Your task to perform on an android device: turn pop-ups off in chrome Image 0: 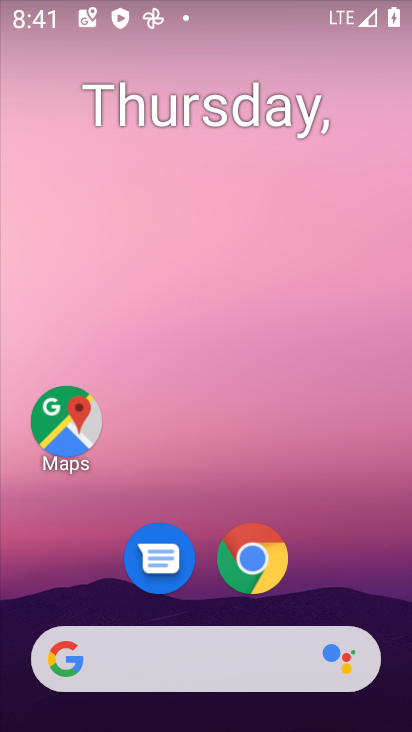
Step 0: click (264, 554)
Your task to perform on an android device: turn pop-ups off in chrome Image 1: 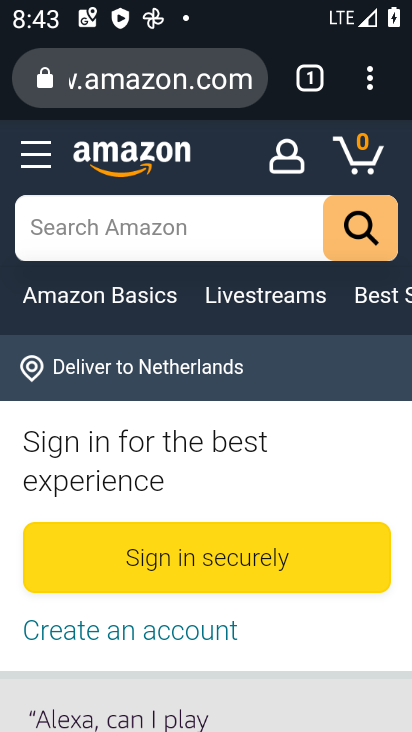
Step 1: click (370, 88)
Your task to perform on an android device: turn pop-ups off in chrome Image 2: 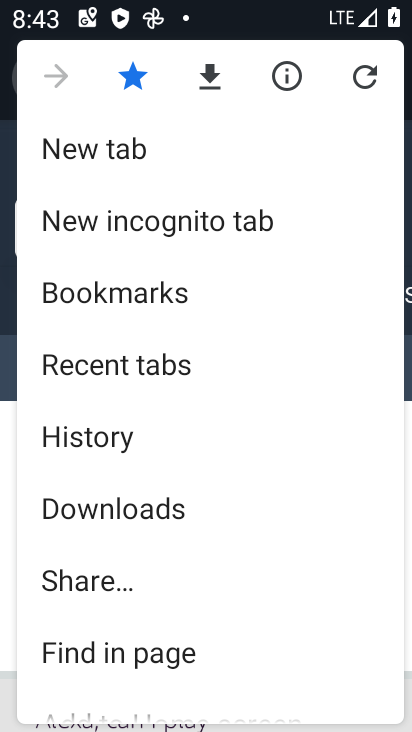
Step 2: drag from (104, 656) to (178, 339)
Your task to perform on an android device: turn pop-ups off in chrome Image 3: 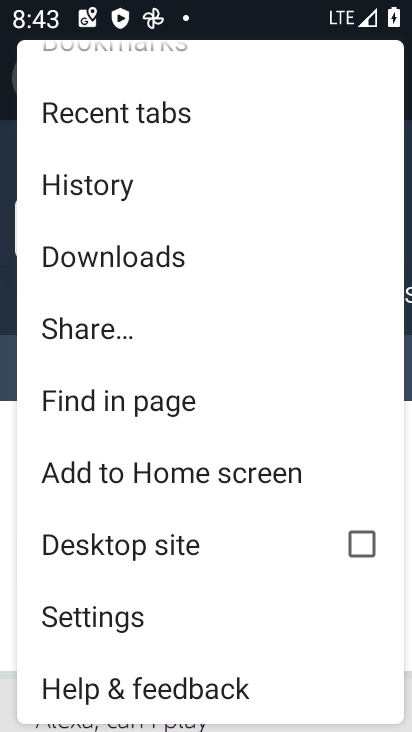
Step 3: click (125, 617)
Your task to perform on an android device: turn pop-ups off in chrome Image 4: 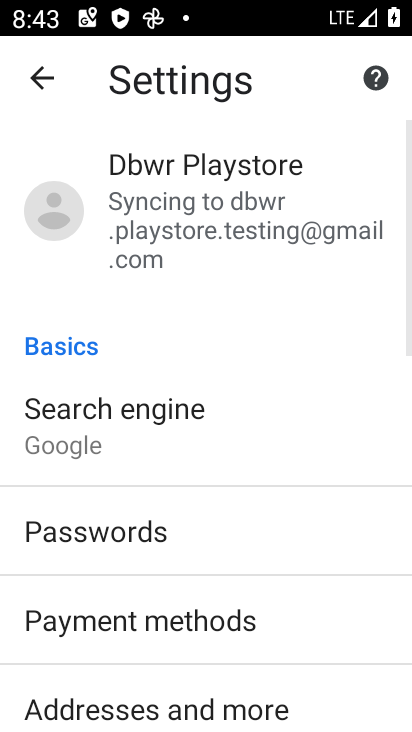
Step 4: drag from (149, 576) to (197, 102)
Your task to perform on an android device: turn pop-ups off in chrome Image 5: 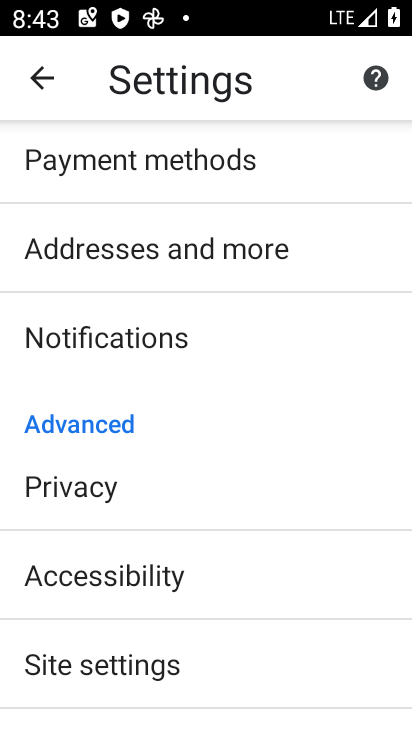
Step 5: click (112, 663)
Your task to perform on an android device: turn pop-ups off in chrome Image 6: 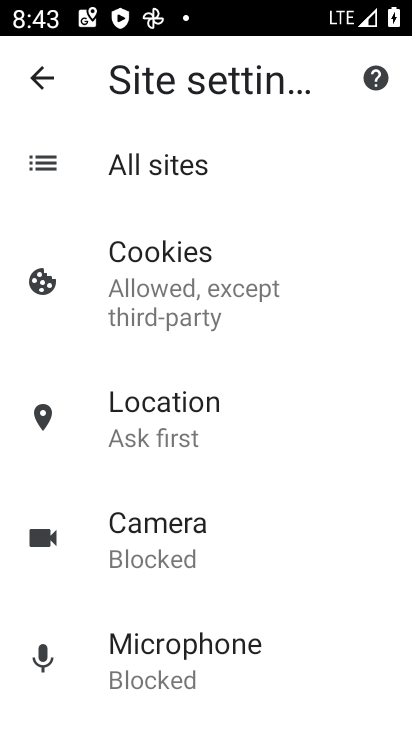
Step 6: drag from (192, 430) to (183, 2)
Your task to perform on an android device: turn pop-ups off in chrome Image 7: 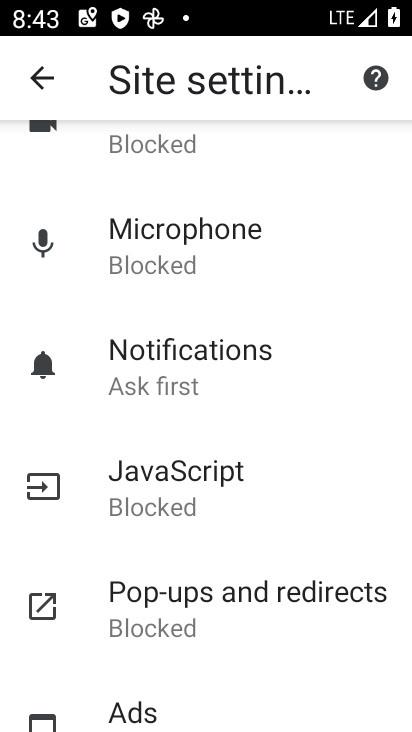
Step 7: click (190, 619)
Your task to perform on an android device: turn pop-ups off in chrome Image 8: 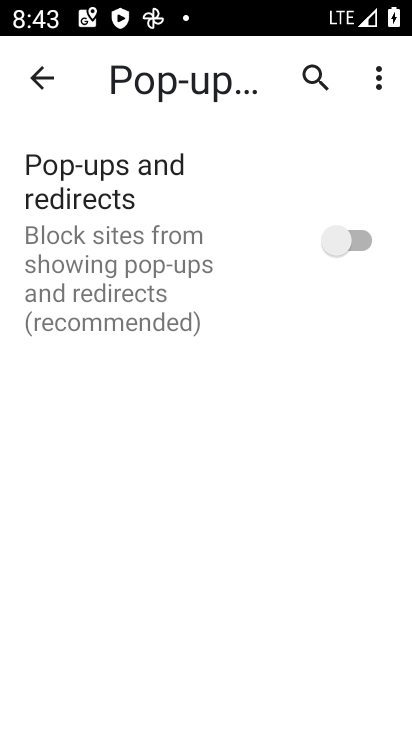
Step 8: click (354, 236)
Your task to perform on an android device: turn pop-ups off in chrome Image 9: 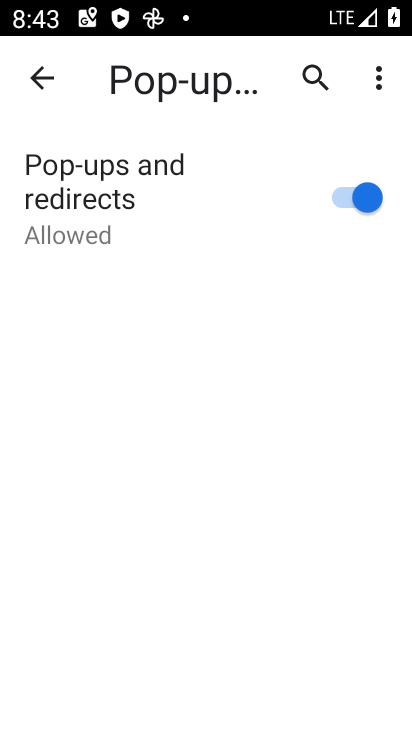
Step 9: click (341, 195)
Your task to perform on an android device: turn pop-ups off in chrome Image 10: 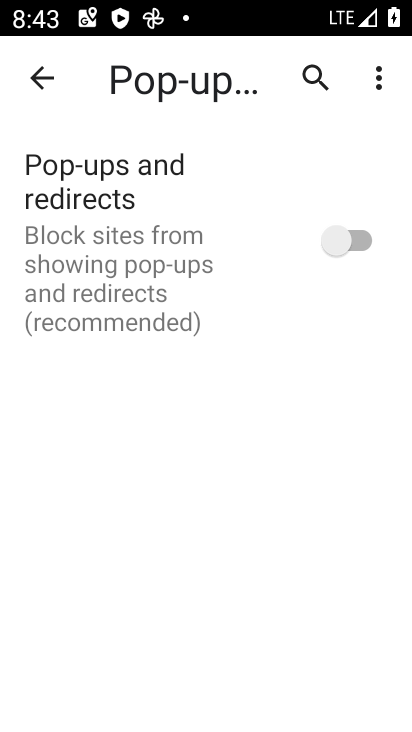
Step 10: task complete